Your task to perform on an android device: toggle javascript in the chrome app Image 0: 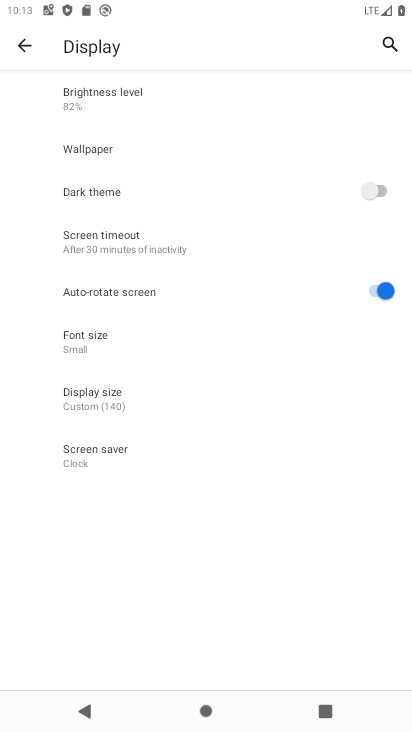
Step 0: press home button
Your task to perform on an android device: toggle javascript in the chrome app Image 1: 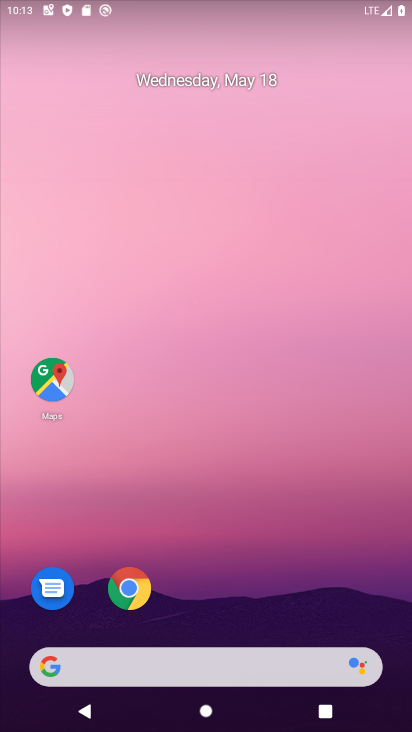
Step 1: click (131, 590)
Your task to perform on an android device: toggle javascript in the chrome app Image 2: 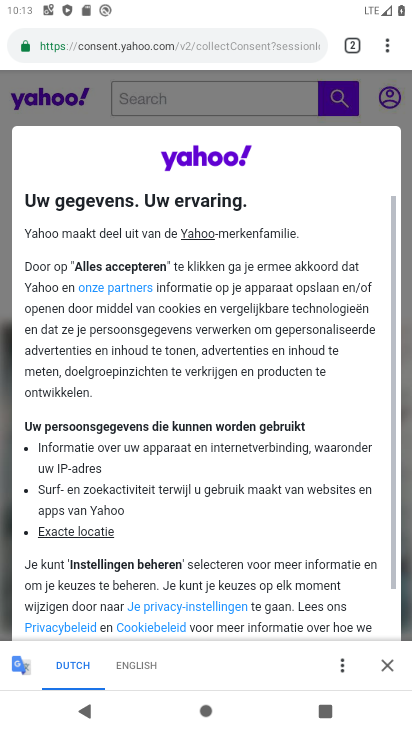
Step 2: click (387, 41)
Your task to perform on an android device: toggle javascript in the chrome app Image 3: 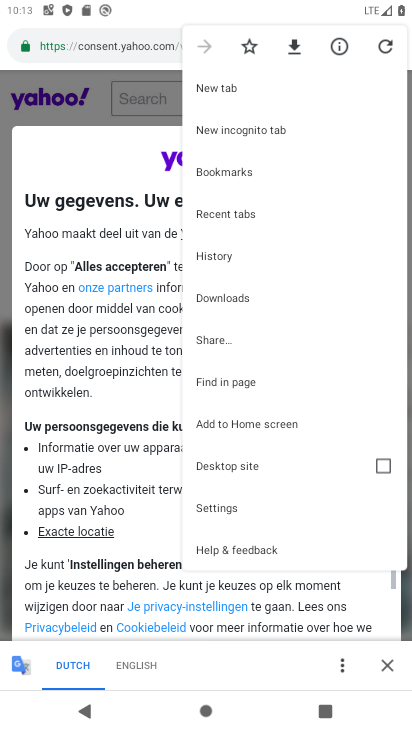
Step 3: click (218, 511)
Your task to perform on an android device: toggle javascript in the chrome app Image 4: 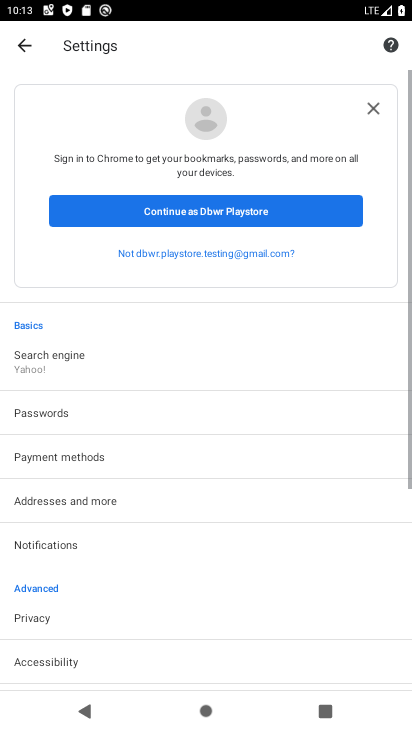
Step 4: drag from (200, 581) to (177, 107)
Your task to perform on an android device: toggle javascript in the chrome app Image 5: 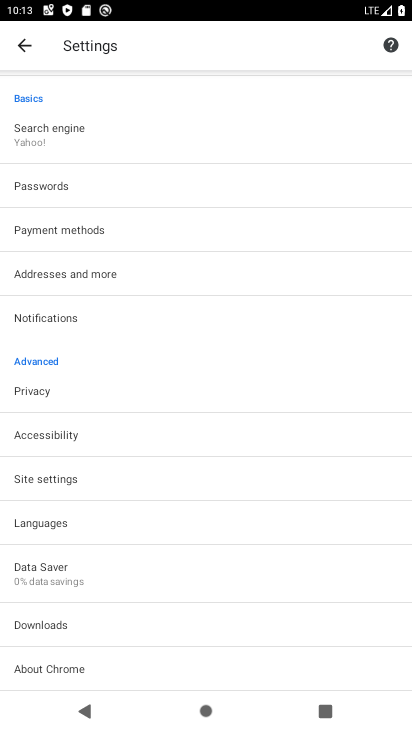
Step 5: click (59, 478)
Your task to perform on an android device: toggle javascript in the chrome app Image 6: 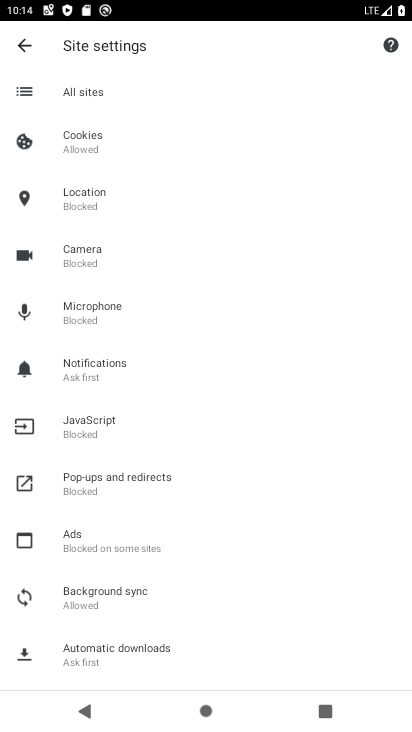
Step 6: click (89, 436)
Your task to perform on an android device: toggle javascript in the chrome app Image 7: 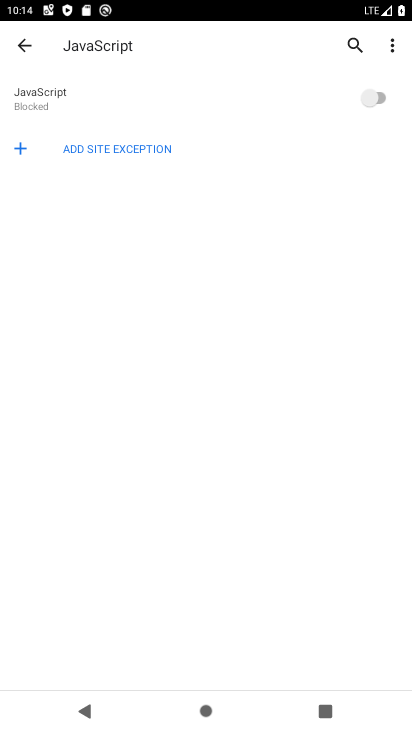
Step 7: click (381, 106)
Your task to perform on an android device: toggle javascript in the chrome app Image 8: 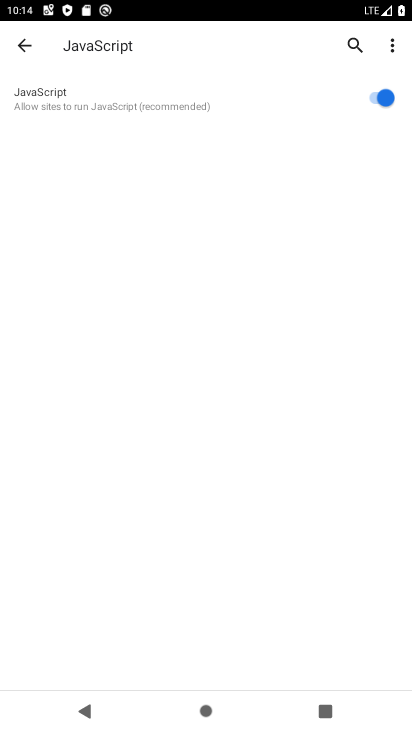
Step 8: task complete